Your task to perform on an android device: Search for logitech g pro on ebay, select the first entry, add it to the cart, then select checkout. Image 0: 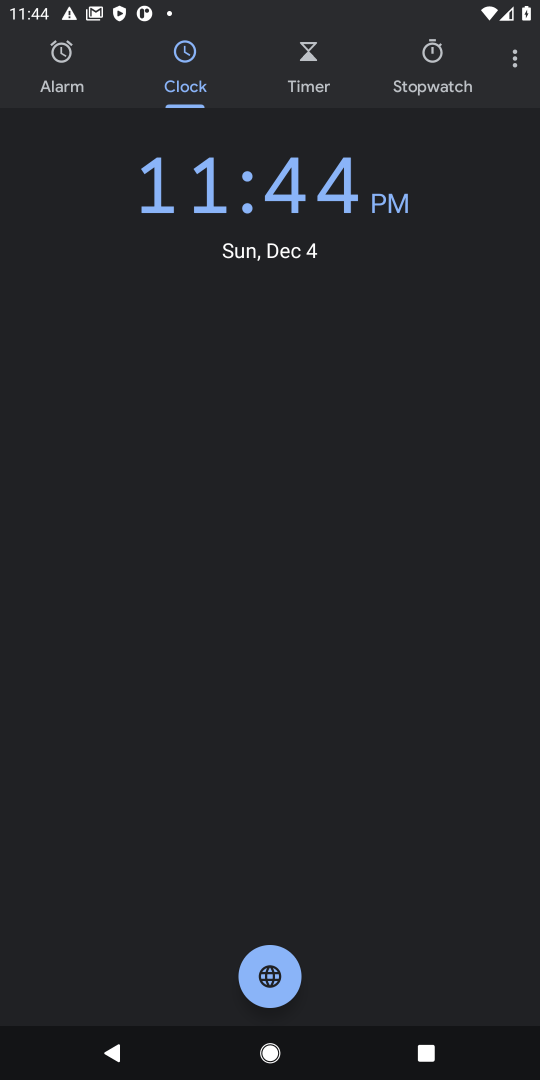
Step 0: task complete